Your task to perform on an android device: turn on javascript in the chrome app Image 0: 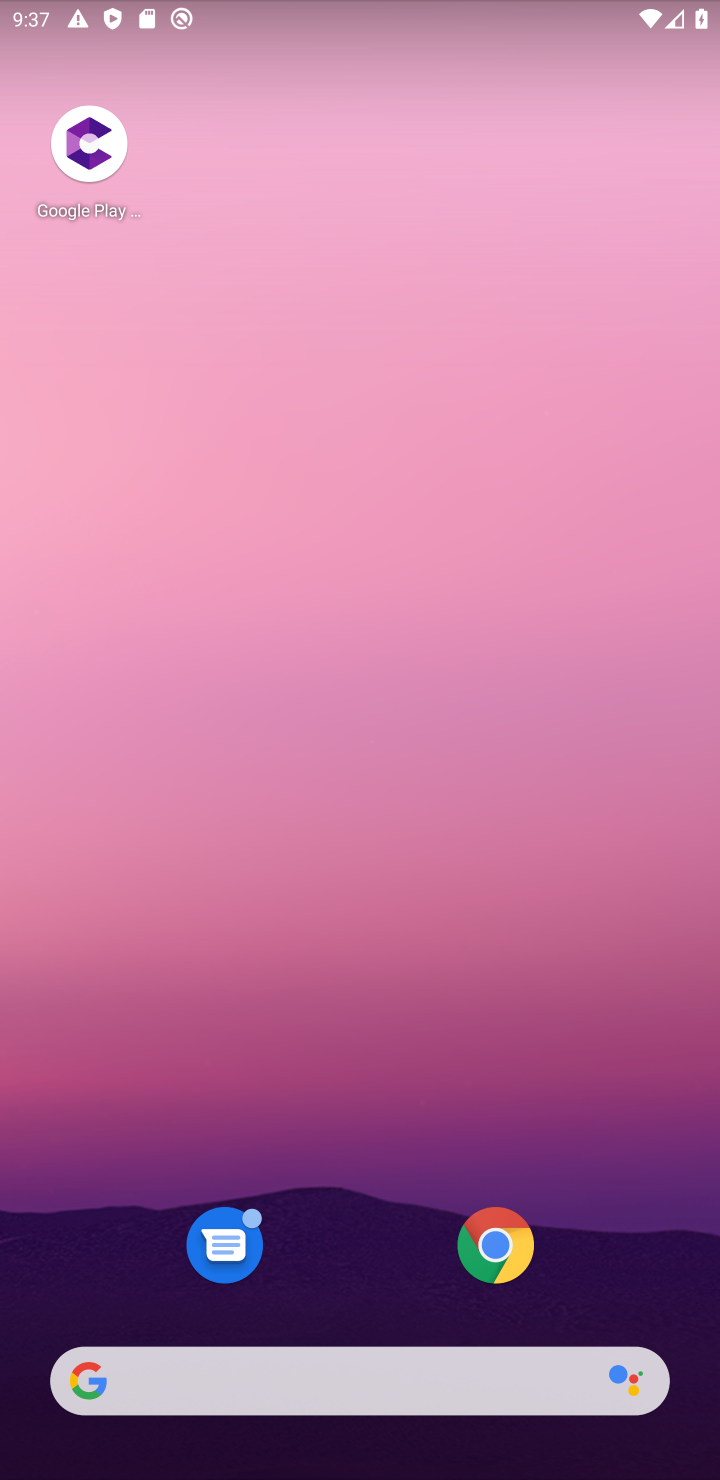
Step 0: click (498, 1249)
Your task to perform on an android device: turn on javascript in the chrome app Image 1: 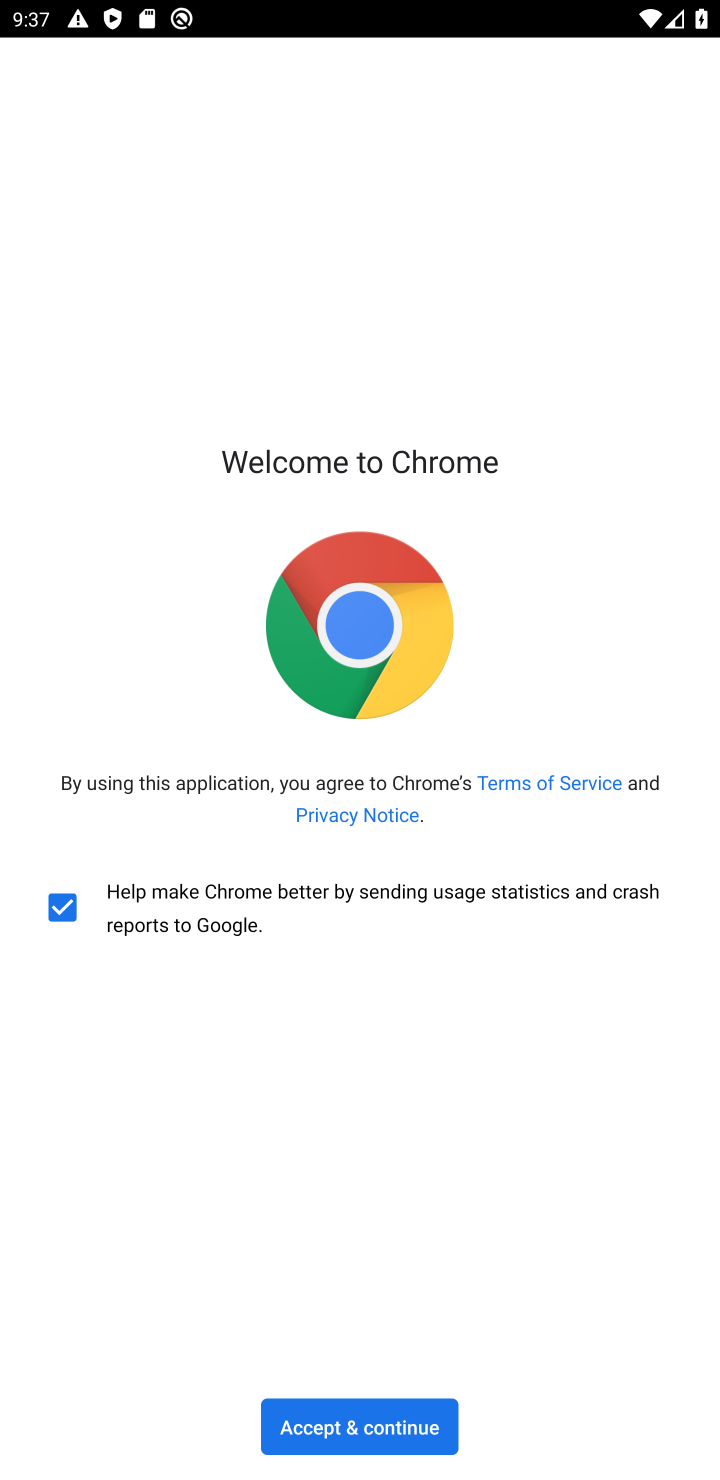
Step 1: click (354, 1429)
Your task to perform on an android device: turn on javascript in the chrome app Image 2: 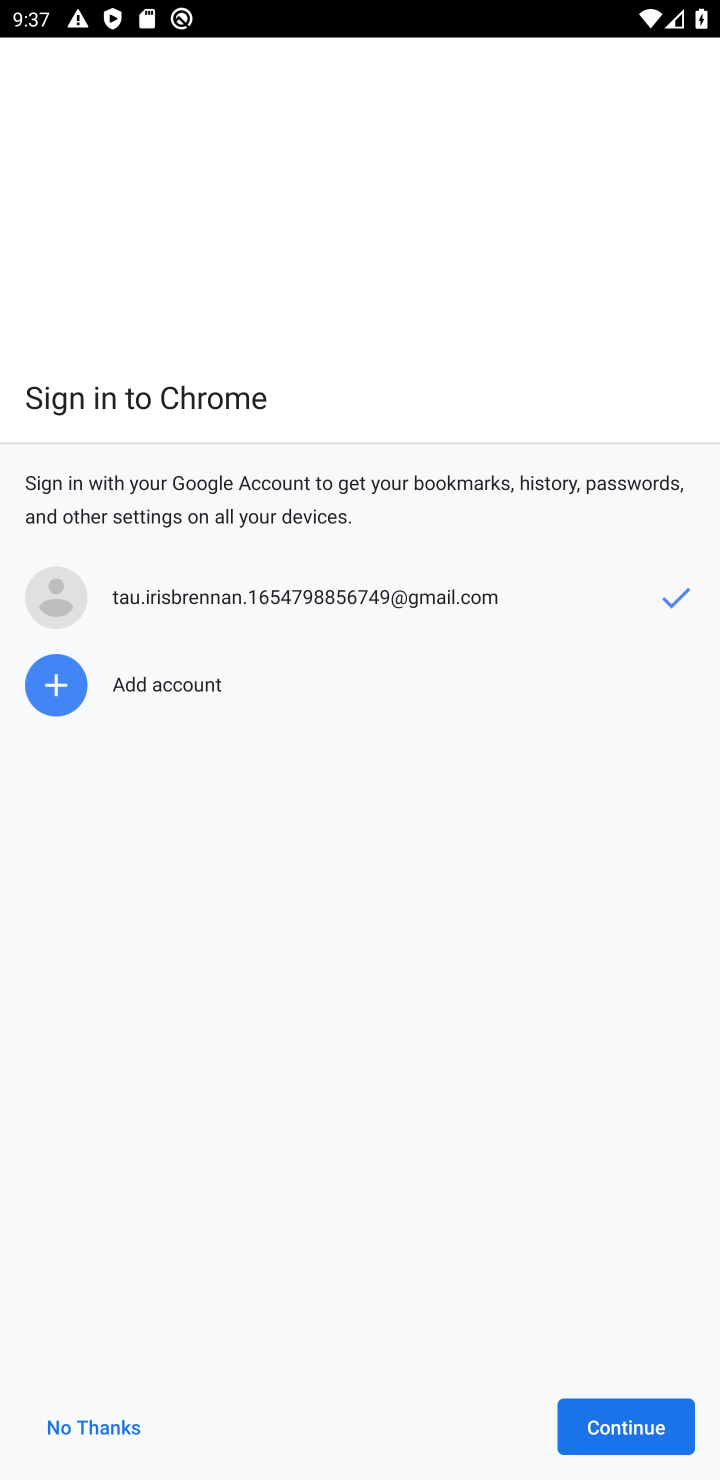
Step 2: click (628, 1429)
Your task to perform on an android device: turn on javascript in the chrome app Image 3: 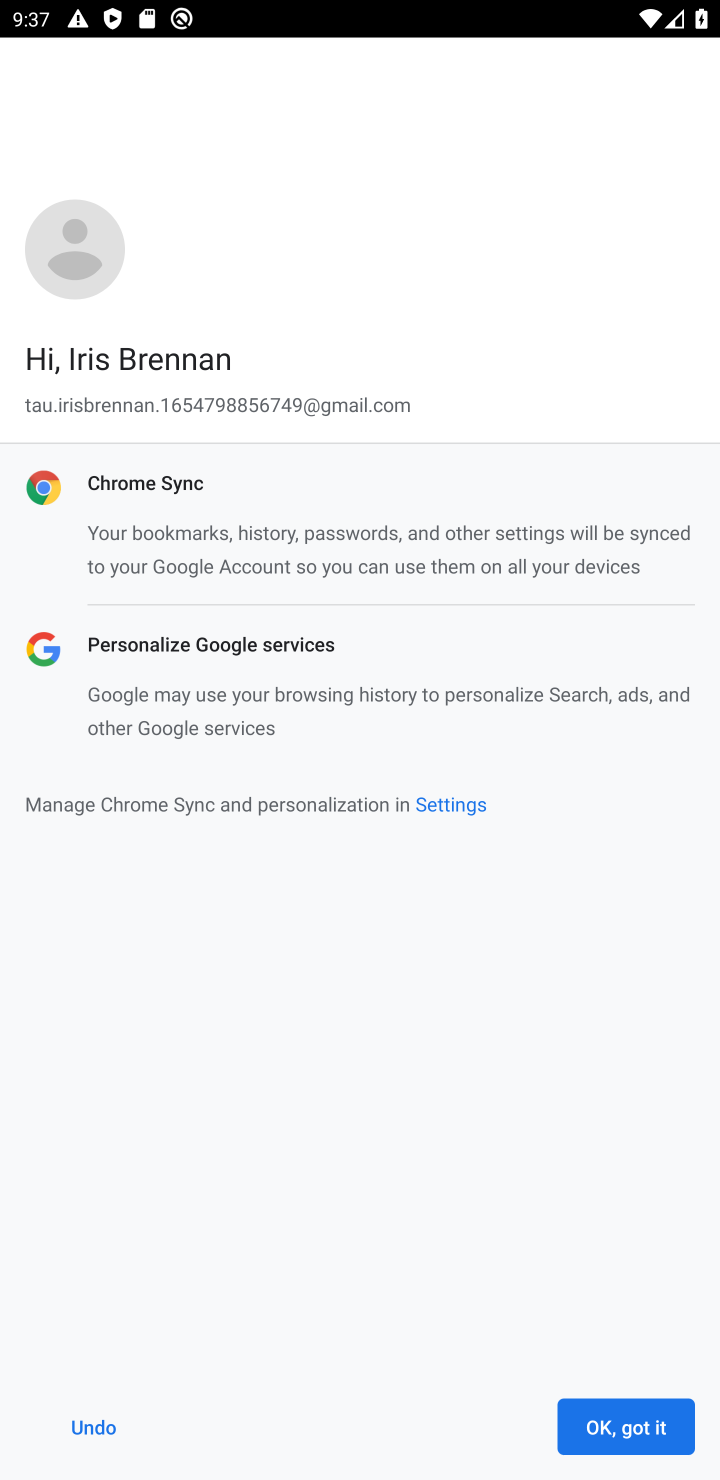
Step 3: click (628, 1429)
Your task to perform on an android device: turn on javascript in the chrome app Image 4: 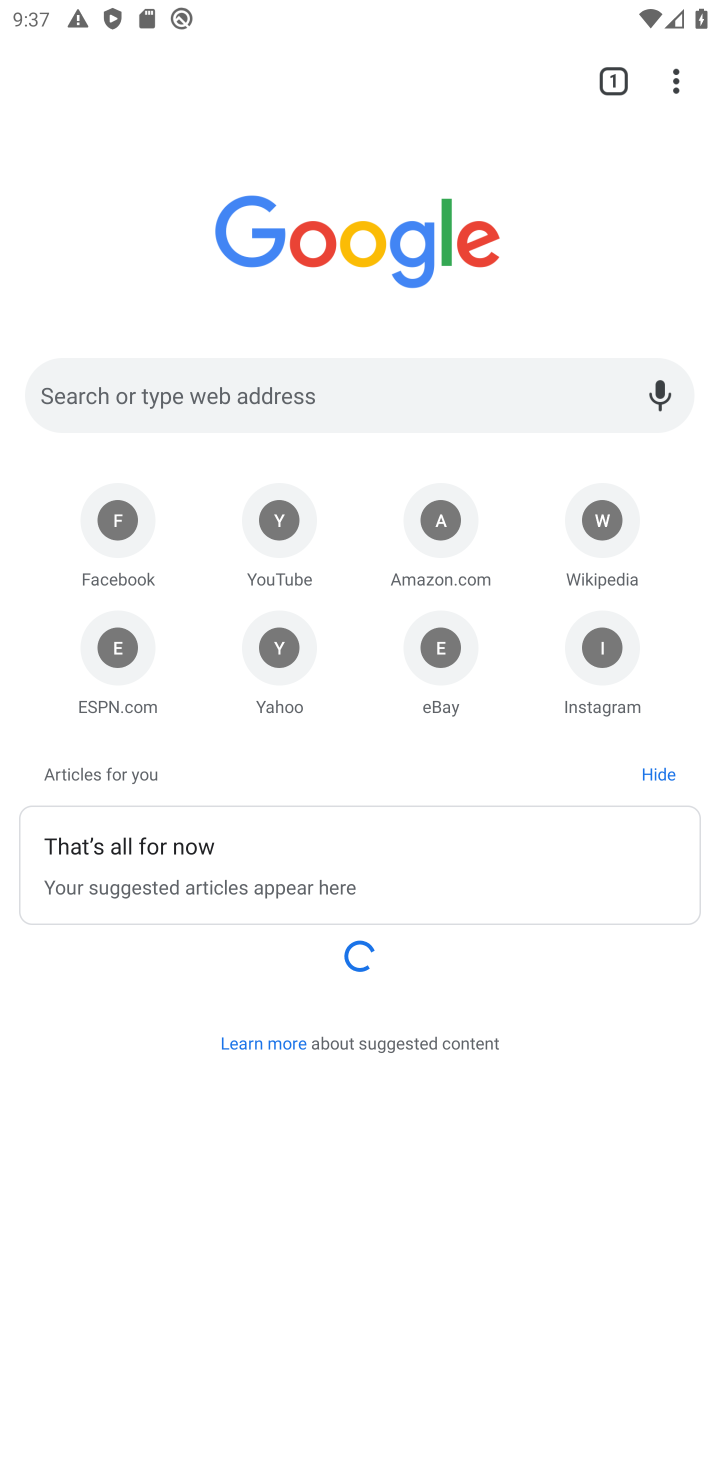
Step 4: click (679, 72)
Your task to perform on an android device: turn on javascript in the chrome app Image 5: 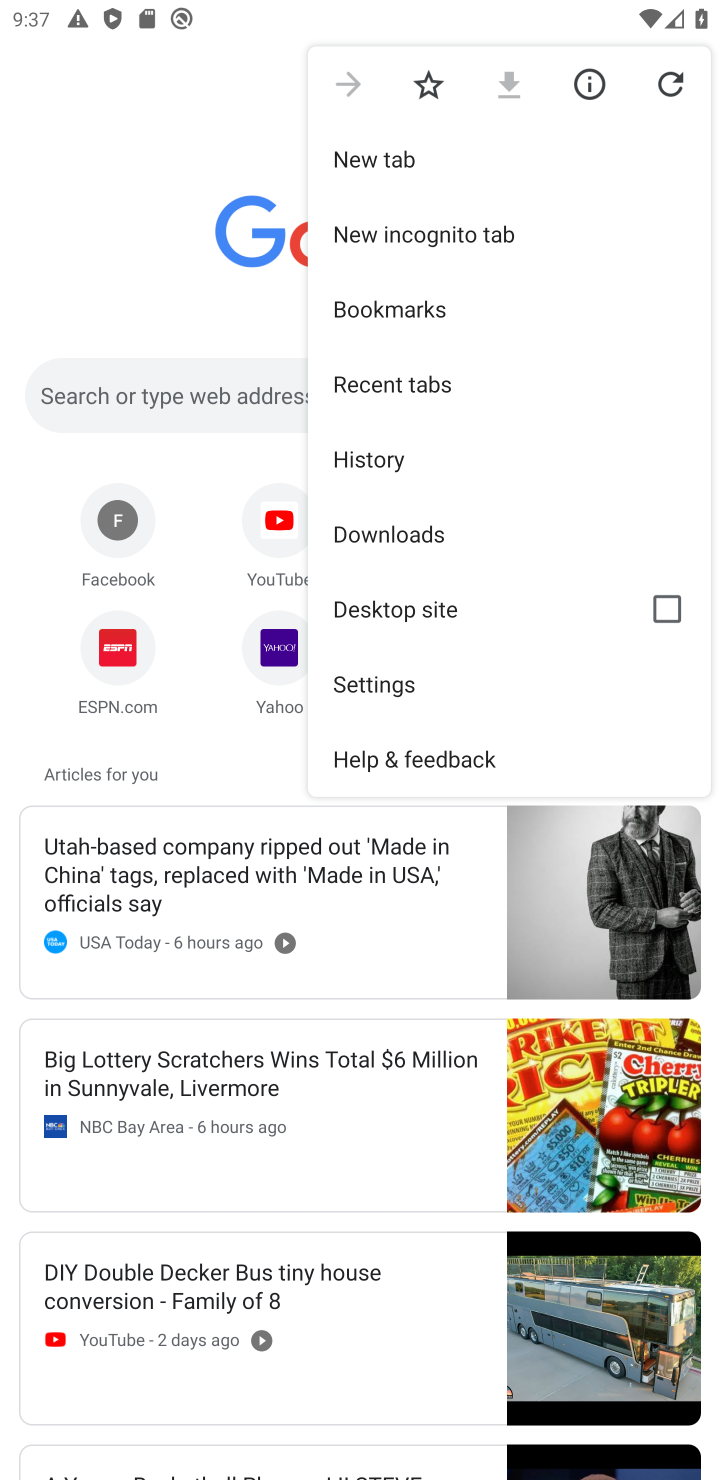
Step 5: click (372, 672)
Your task to perform on an android device: turn on javascript in the chrome app Image 6: 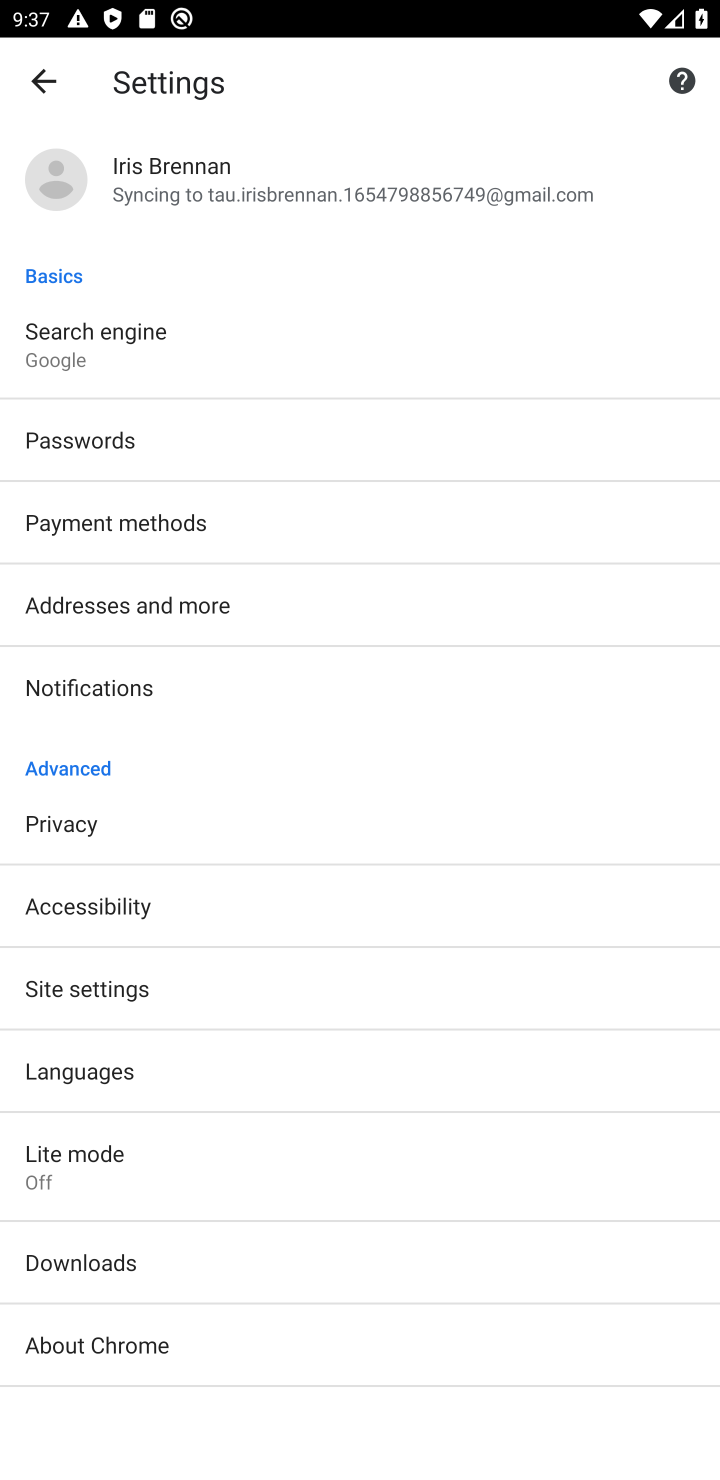
Step 6: click (108, 982)
Your task to perform on an android device: turn on javascript in the chrome app Image 7: 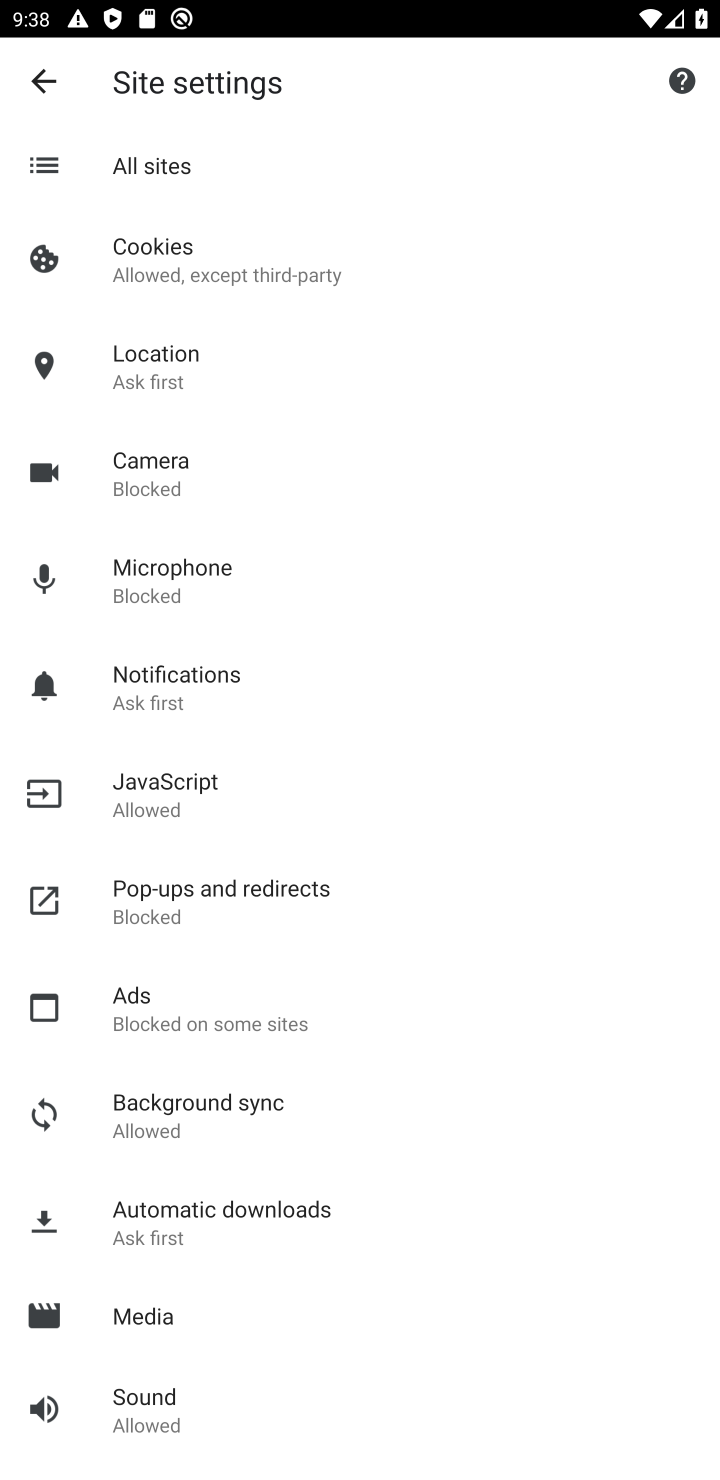
Step 7: click (185, 776)
Your task to perform on an android device: turn on javascript in the chrome app Image 8: 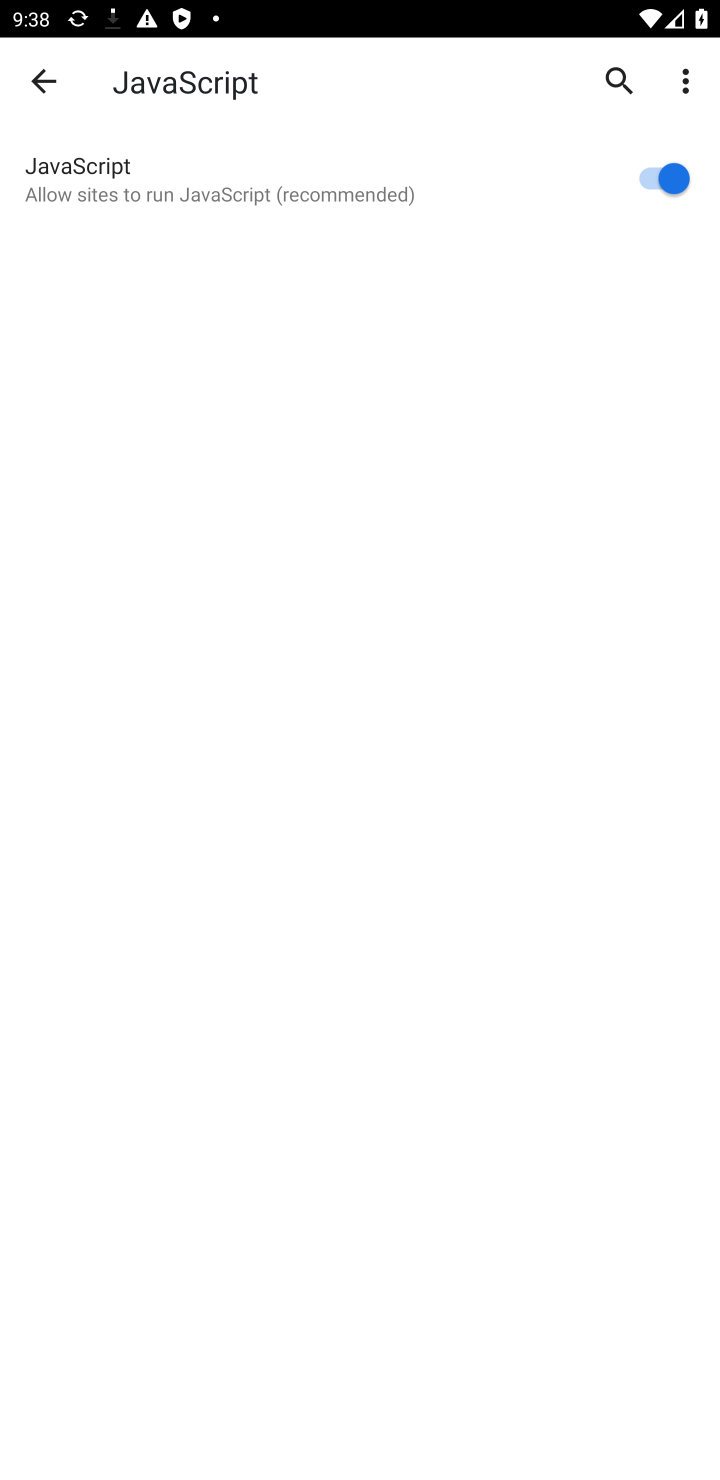
Step 8: task complete